Your task to perform on an android device: open a bookmark in the chrome app Image 0: 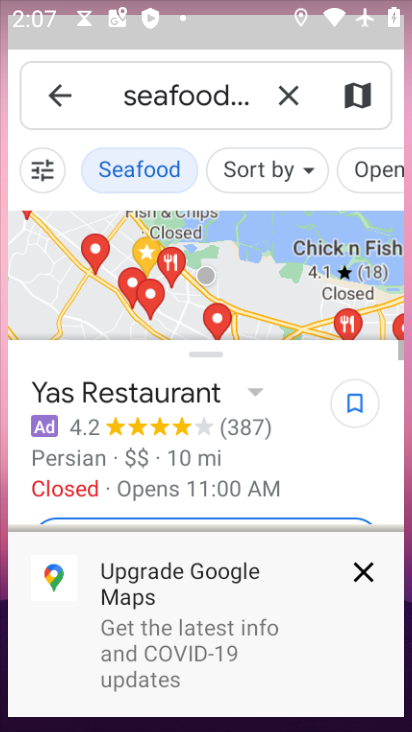
Step 0: click (267, 567)
Your task to perform on an android device: open a bookmark in the chrome app Image 1: 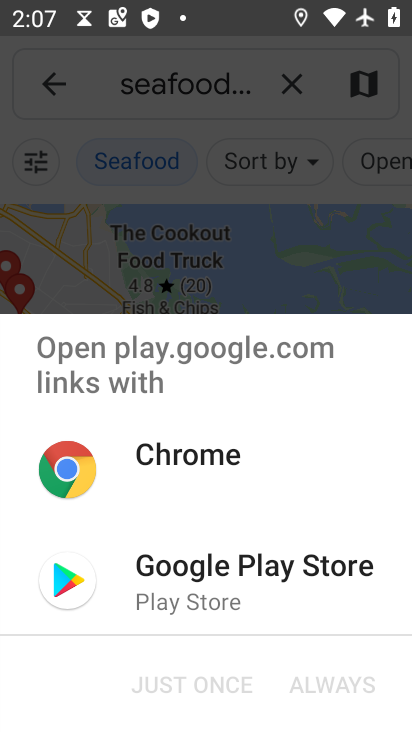
Step 1: press home button
Your task to perform on an android device: open a bookmark in the chrome app Image 2: 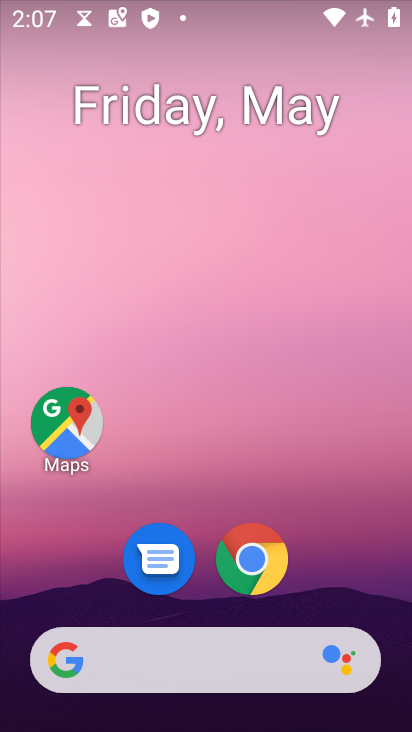
Step 2: click (279, 557)
Your task to perform on an android device: open a bookmark in the chrome app Image 3: 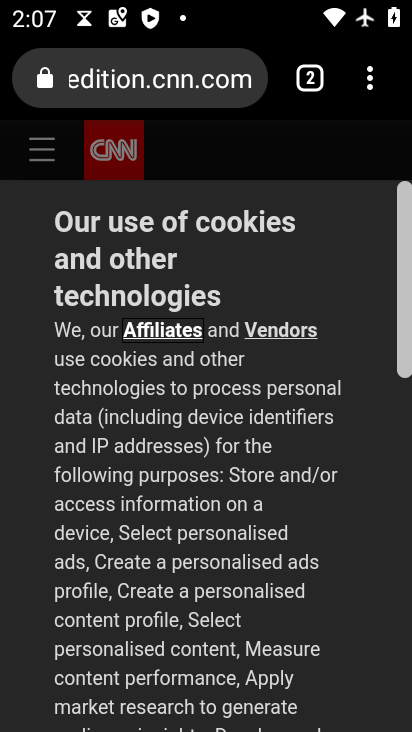
Step 3: task complete